Your task to perform on an android device: check android version Image 0: 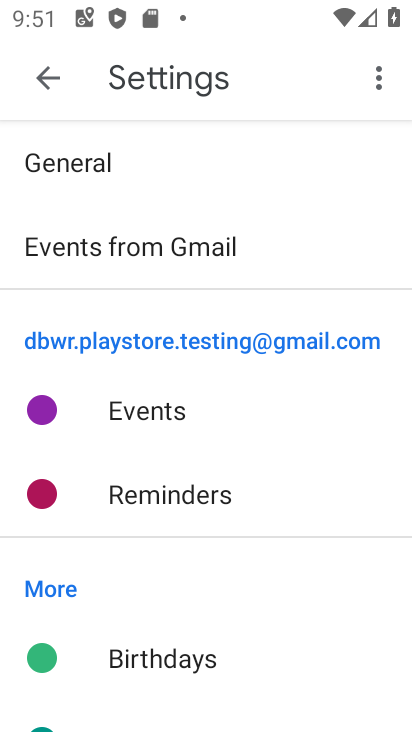
Step 0: press home button
Your task to perform on an android device: check android version Image 1: 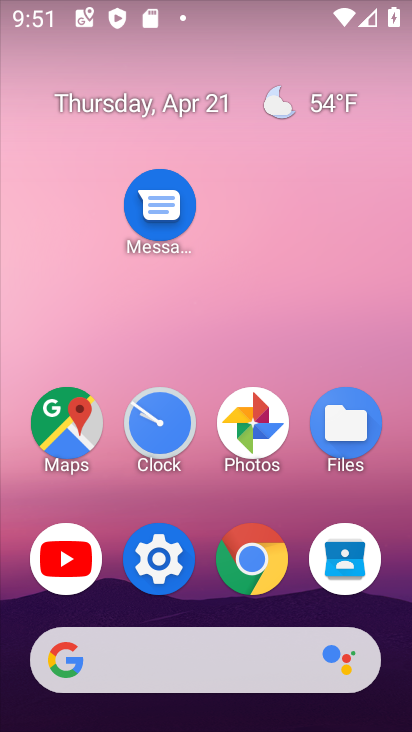
Step 1: click (158, 554)
Your task to perform on an android device: check android version Image 2: 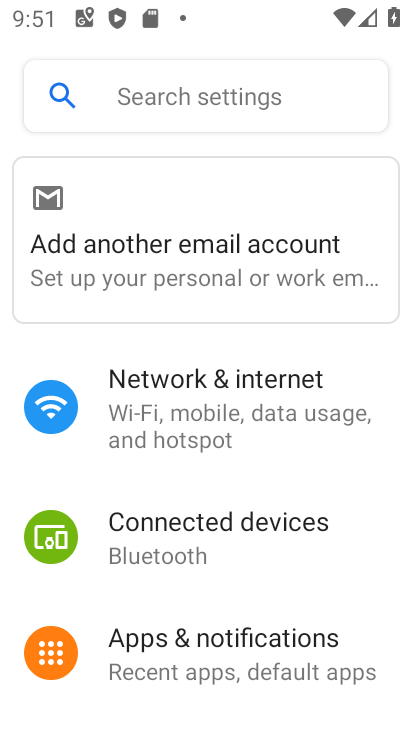
Step 2: drag from (378, 574) to (334, 36)
Your task to perform on an android device: check android version Image 3: 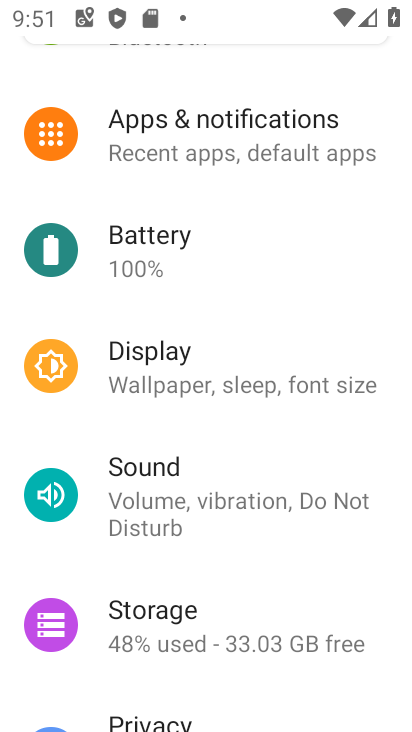
Step 3: drag from (285, 561) to (292, 42)
Your task to perform on an android device: check android version Image 4: 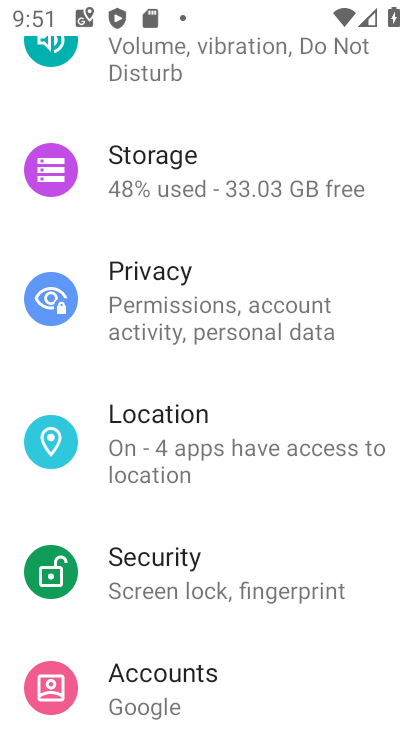
Step 4: drag from (267, 507) to (254, 45)
Your task to perform on an android device: check android version Image 5: 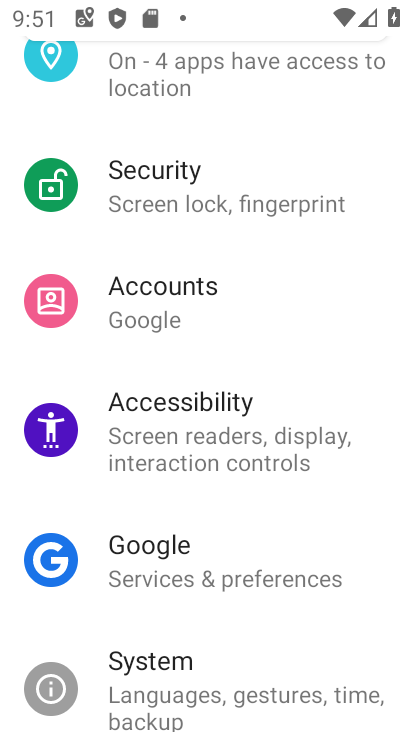
Step 5: drag from (270, 631) to (261, 119)
Your task to perform on an android device: check android version Image 6: 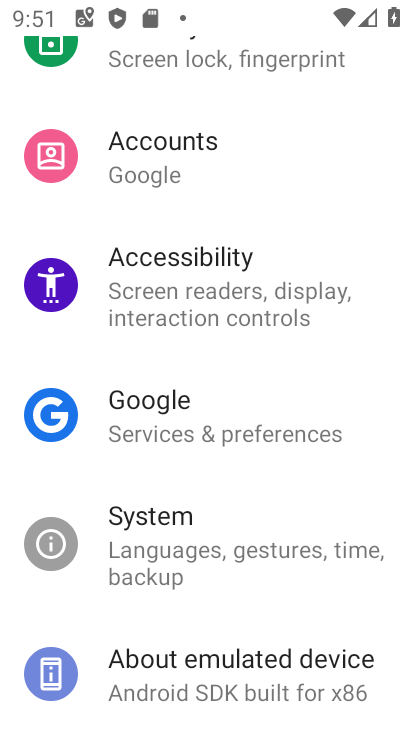
Step 6: click (203, 668)
Your task to perform on an android device: check android version Image 7: 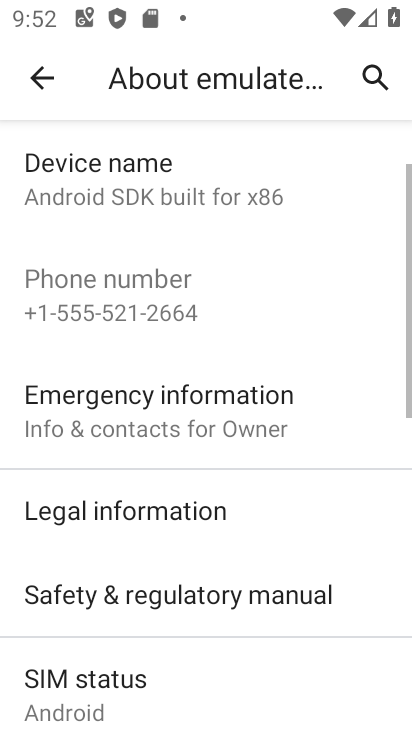
Step 7: drag from (301, 463) to (308, 116)
Your task to perform on an android device: check android version Image 8: 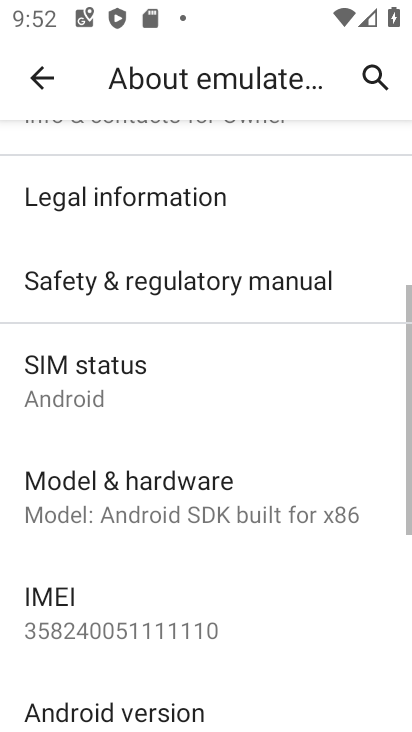
Step 8: drag from (272, 654) to (226, 213)
Your task to perform on an android device: check android version Image 9: 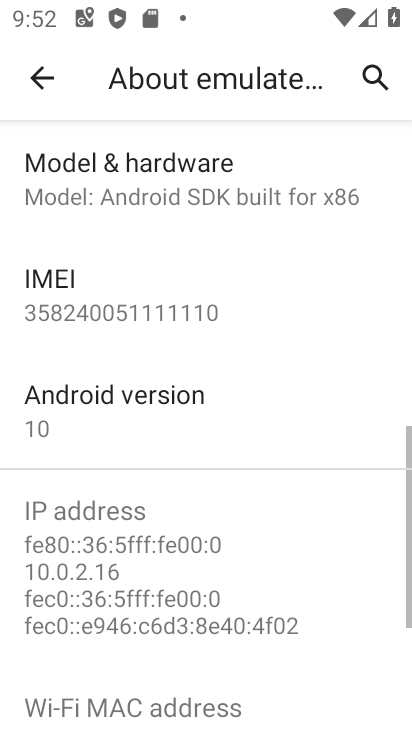
Step 9: click (116, 389)
Your task to perform on an android device: check android version Image 10: 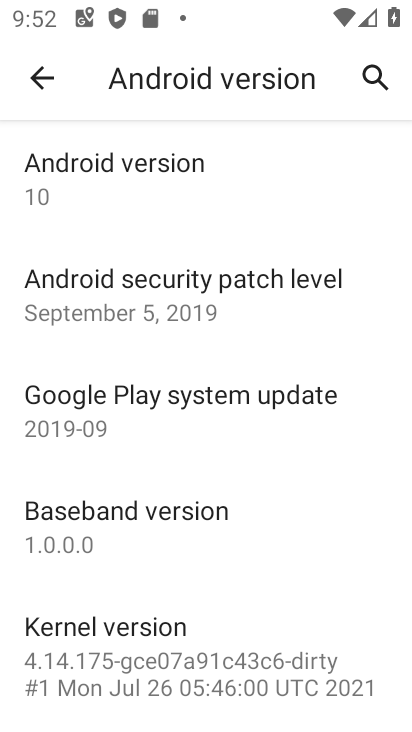
Step 10: task complete